Your task to perform on an android device: Open ESPN.com Image 0: 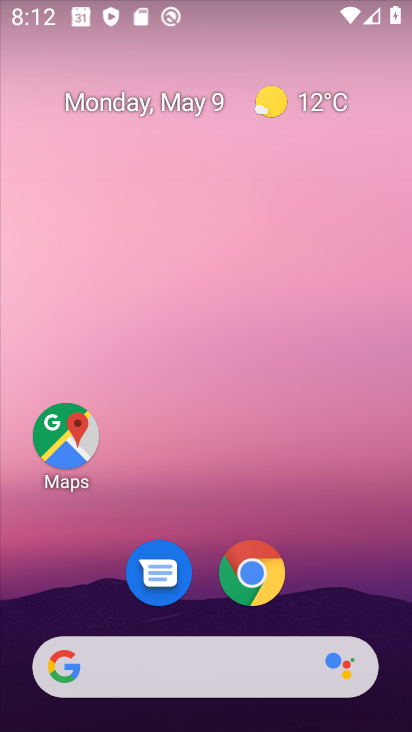
Step 0: click (275, 586)
Your task to perform on an android device: Open ESPN.com Image 1: 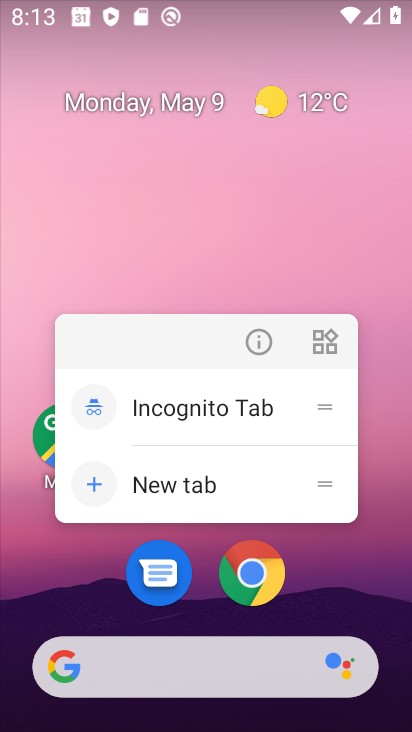
Step 1: click (253, 577)
Your task to perform on an android device: Open ESPN.com Image 2: 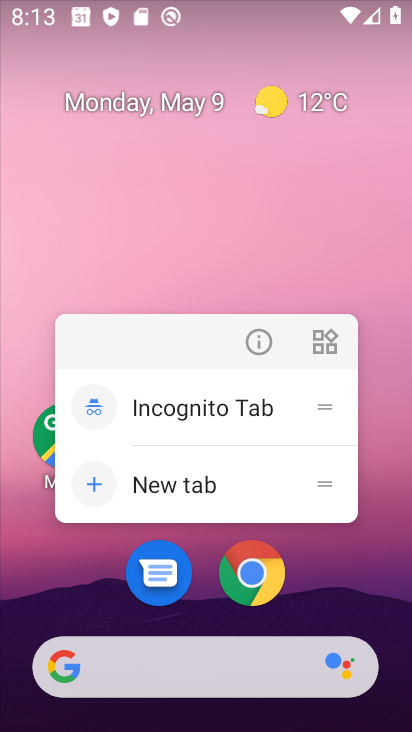
Step 2: click (242, 575)
Your task to perform on an android device: Open ESPN.com Image 3: 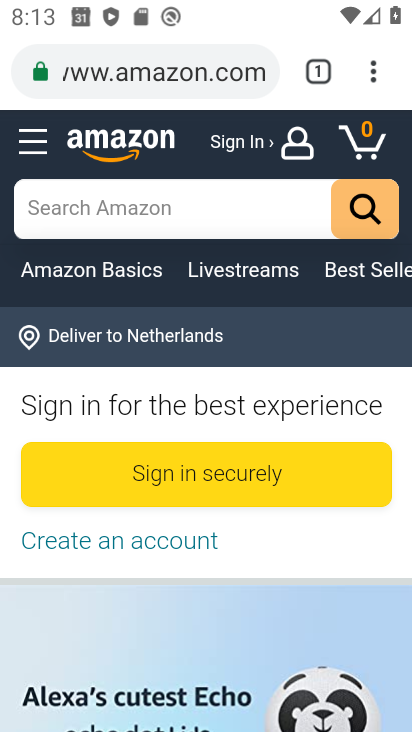
Step 3: click (209, 76)
Your task to perform on an android device: Open ESPN.com Image 4: 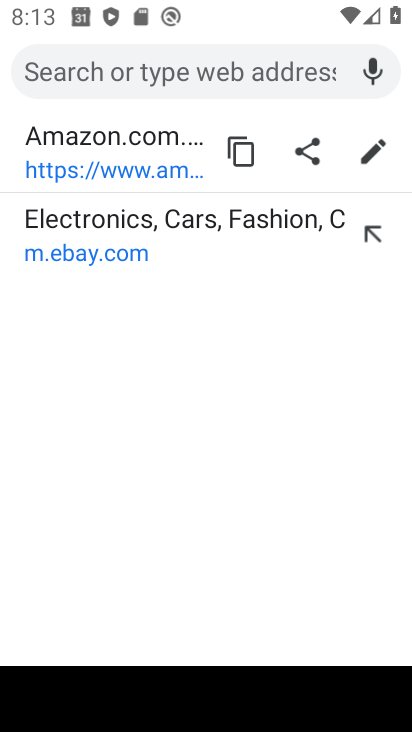
Step 4: type "espn.com"
Your task to perform on an android device: Open ESPN.com Image 5: 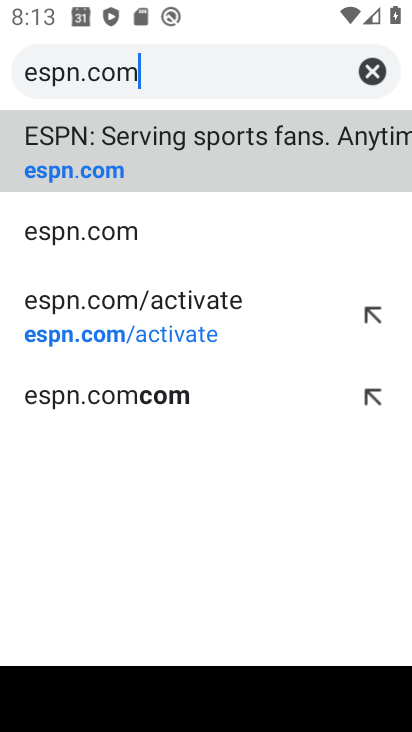
Step 5: click (251, 148)
Your task to perform on an android device: Open ESPN.com Image 6: 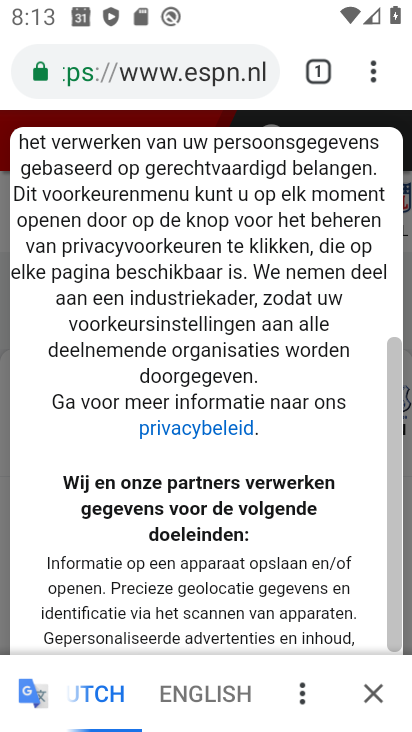
Step 6: task complete